Your task to perform on an android device: Go to sound settings Image 0: 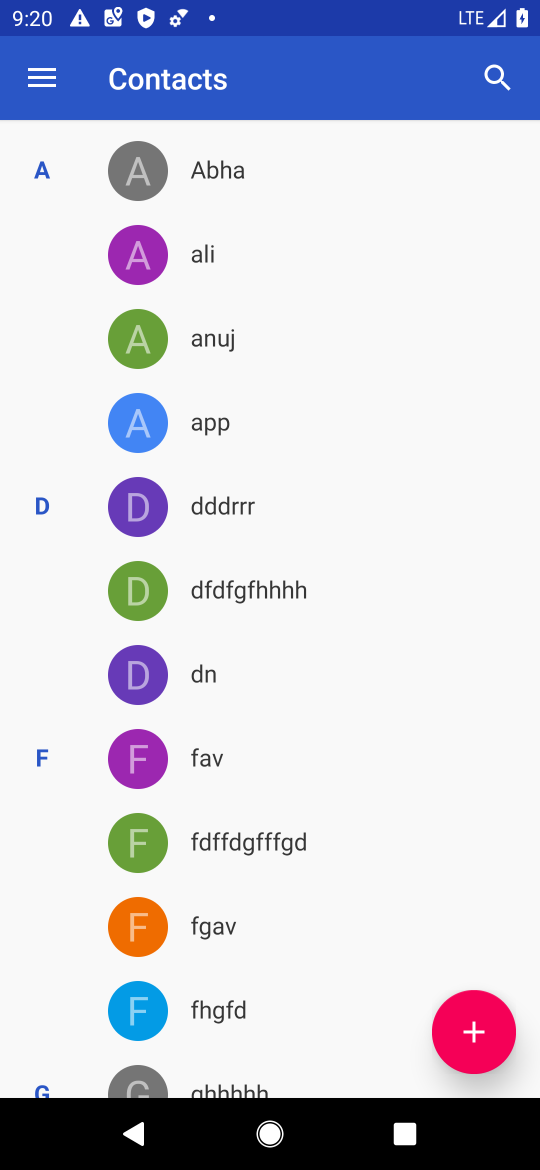
Step 0: press home button
Your task to perform on an android device: Go to sound settings Image 1: 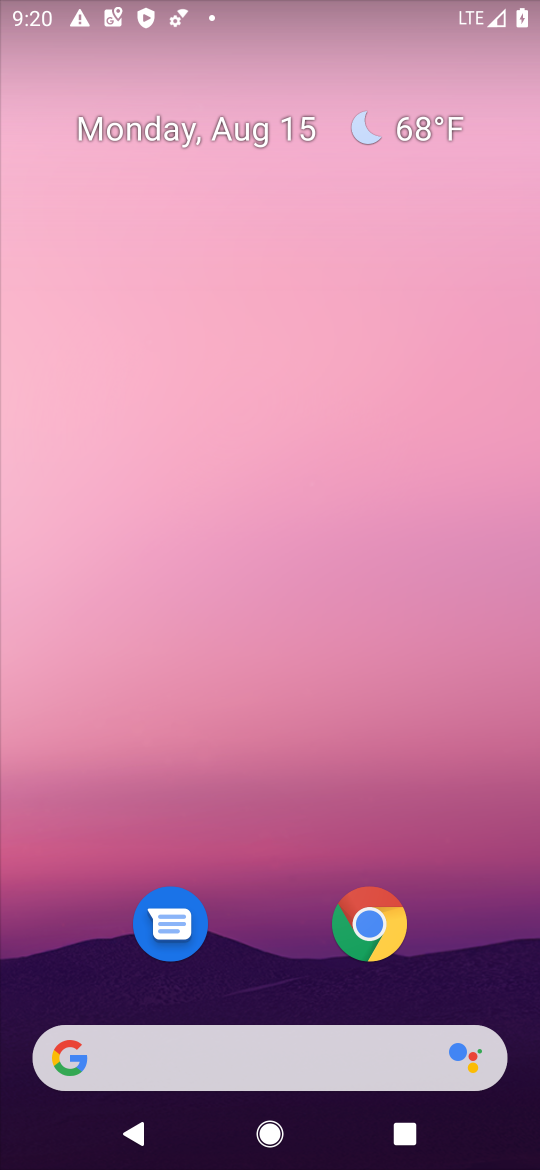
Step 1: drag from (480, 977) to (447, 139)
Your task to perform on an android device: Go to sound settings Image 2: 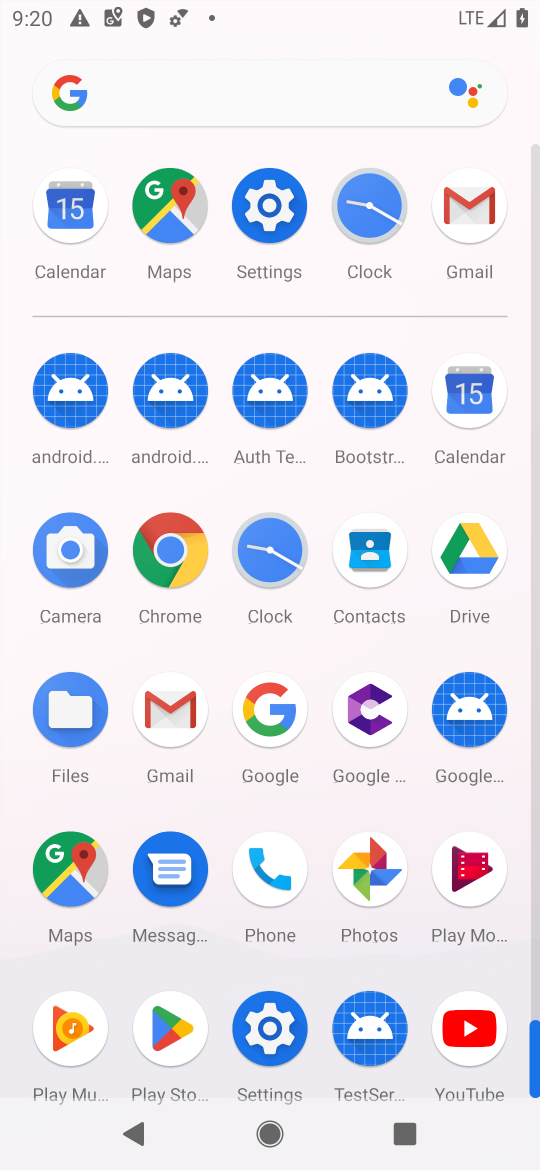
Step 2: click (270, 1025)
Your task to perform on an android device: Go to sound settings Image 3: 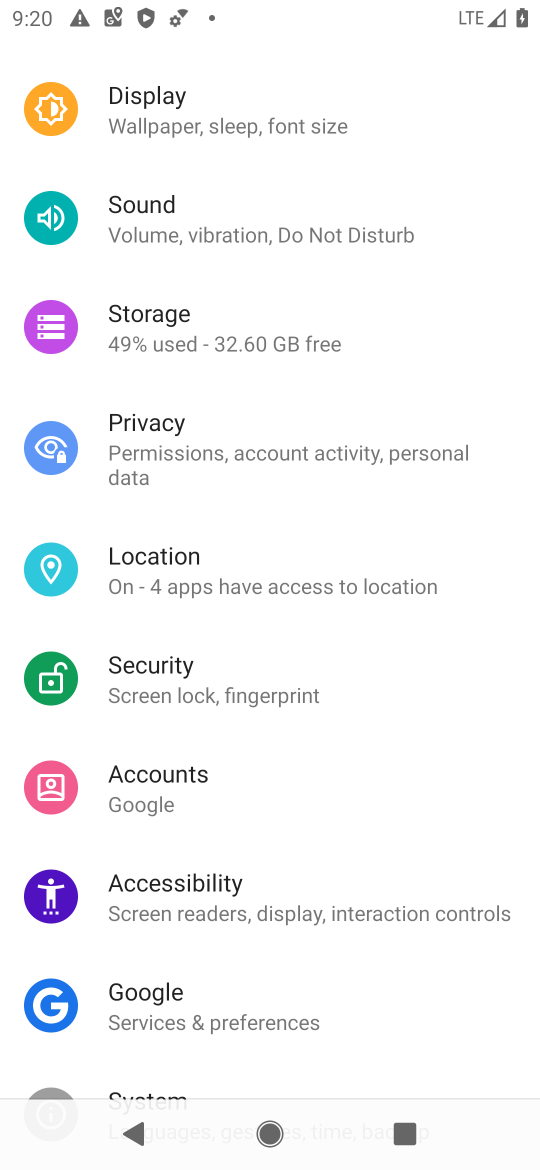
Step 3: drag from (420, 241) to (446, 704)
Your task to perform on an android device: Go to sound settings Image 4: 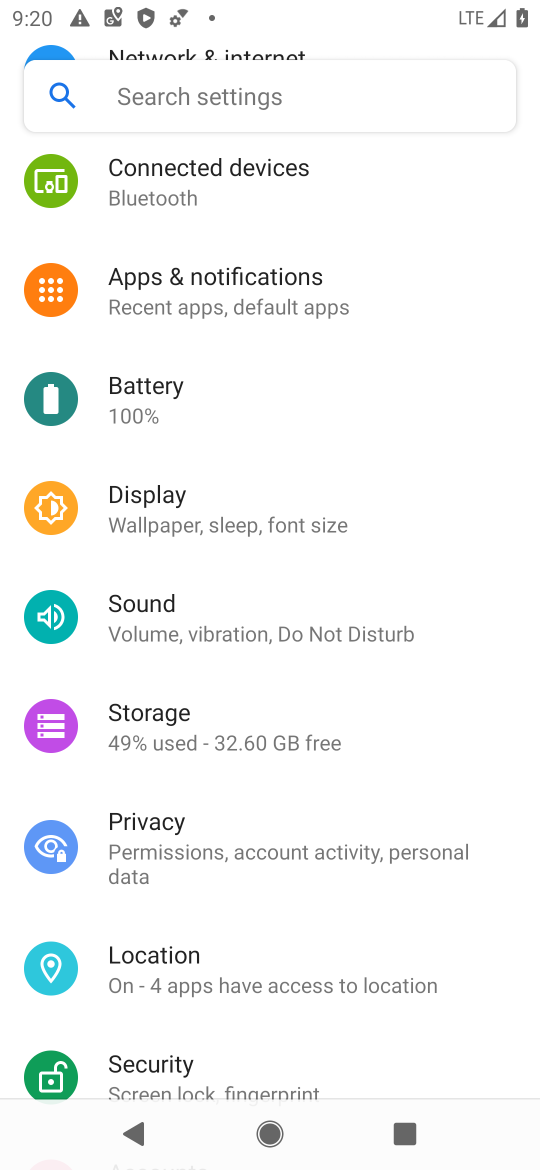
Step 4: click (174, 611)
Your task to perform on an android device: Go to sound settings Image 5: 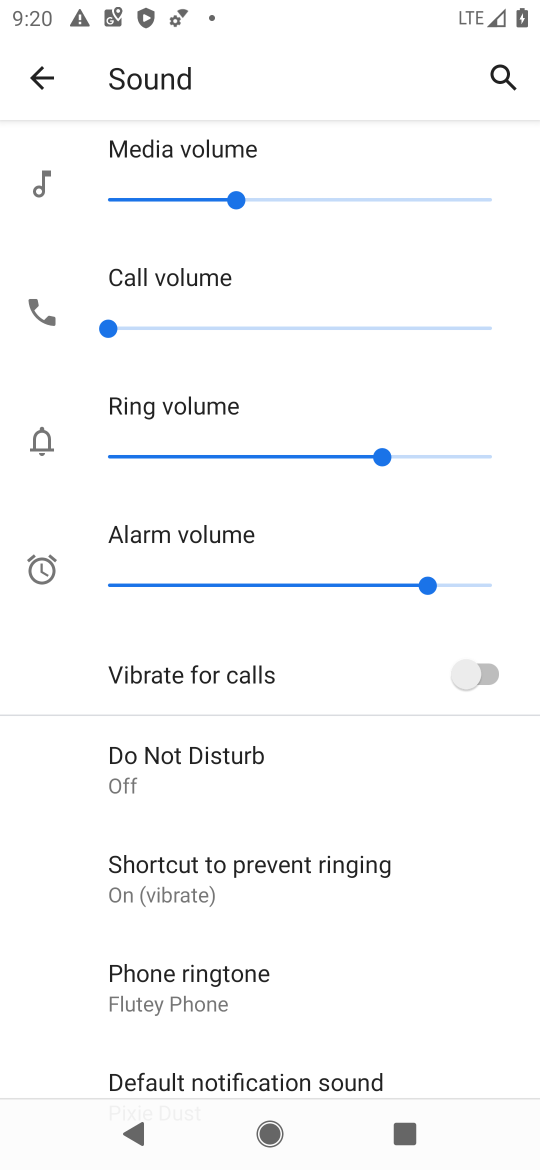
Step 5: drag from (432, 1036) to (361, 470)
Your task to perform on an android device: Go to sound settings Image 6: 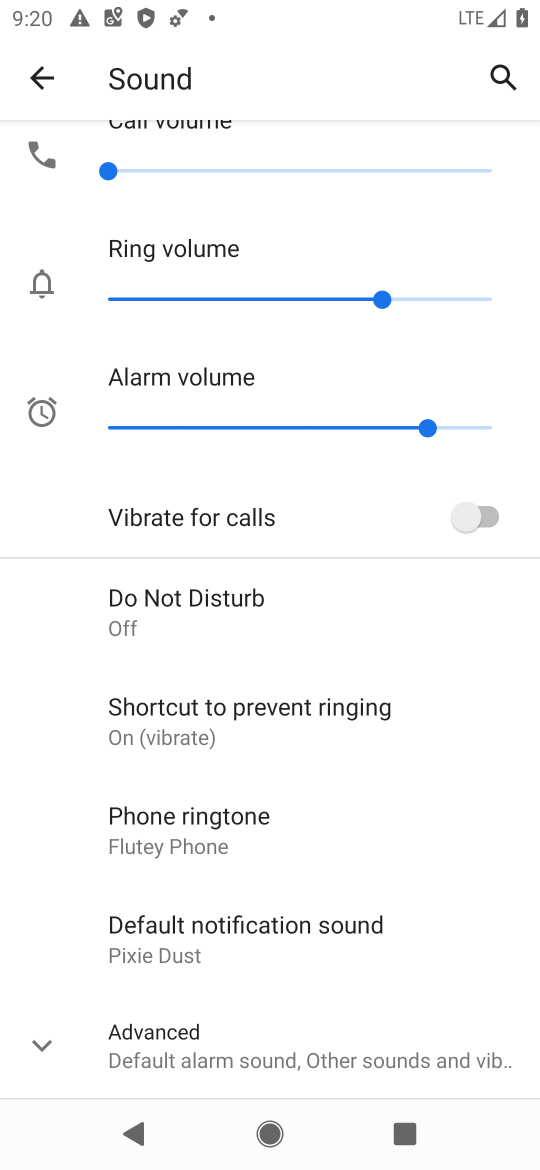
Step 6: click (35, 1049)
Your task to perform on an android device: Go to sound settings Image 7: 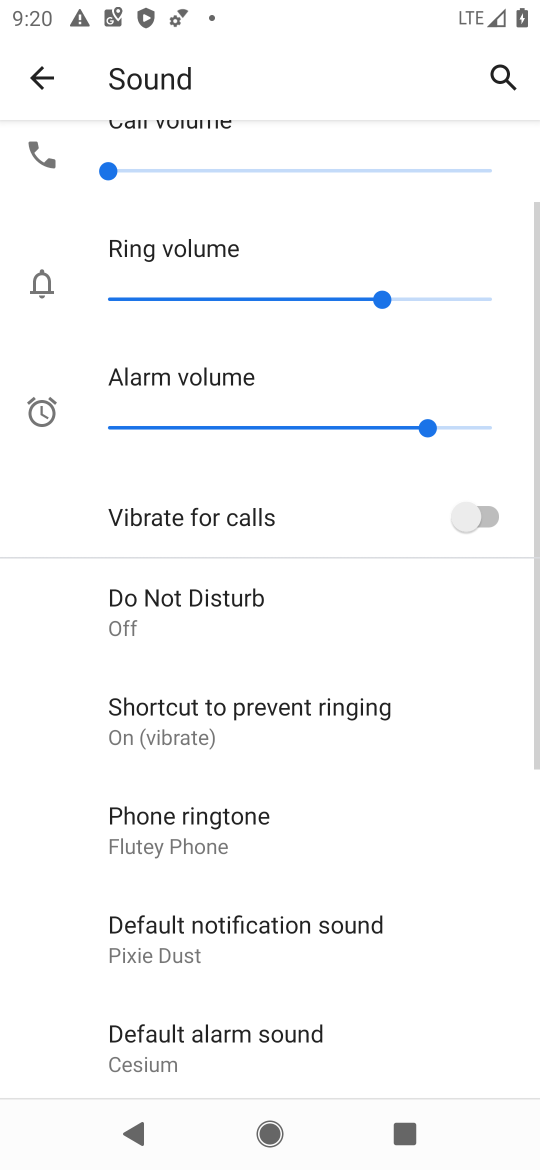
Step 7: task complete